Your task to perform on an android device: find snoozed emails in the gmail app Image 0: 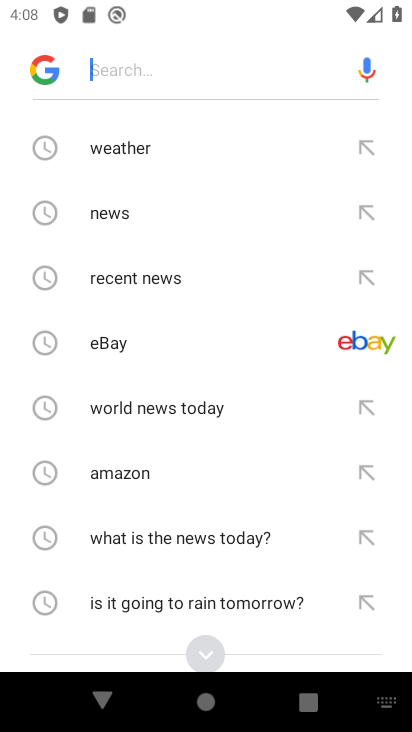
Step 0: press home button
Your task to perform on an android device: find snoozed emails in the gmail app Image 1: 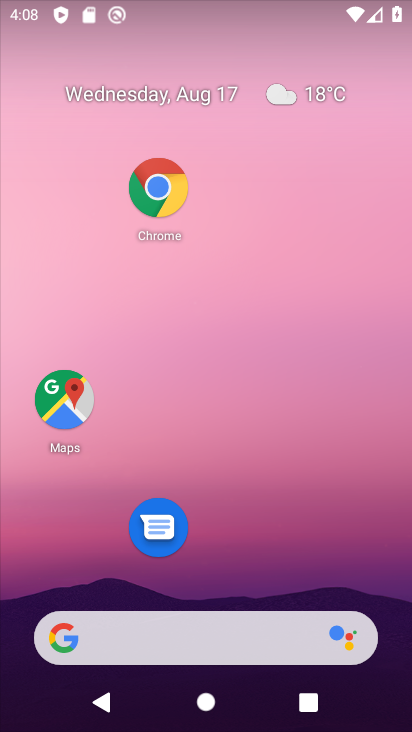
Step 1: drag from (237, 587) to (183, 23)
Your task to perform on an android device: find snoozed emails in the gmail app Image 2: 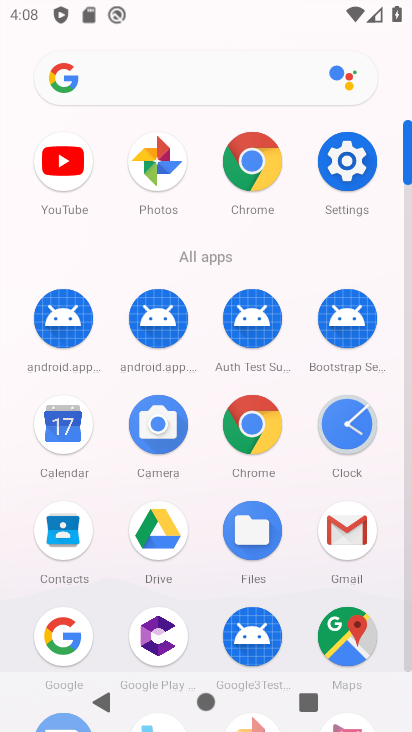
Step 2: click (351, 517)
Your task to perform on an android device: find snoozed emails in the gmail app Image 3: 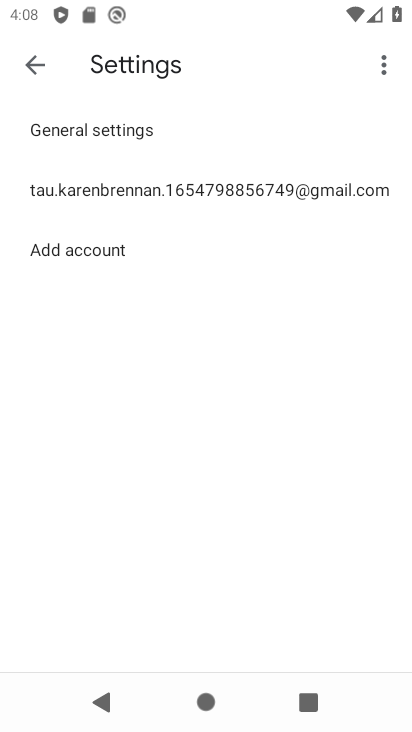
Step 3: click (31, 65)
Your task to perform on an android device: find snoozed emails in the gmail app Image 4: 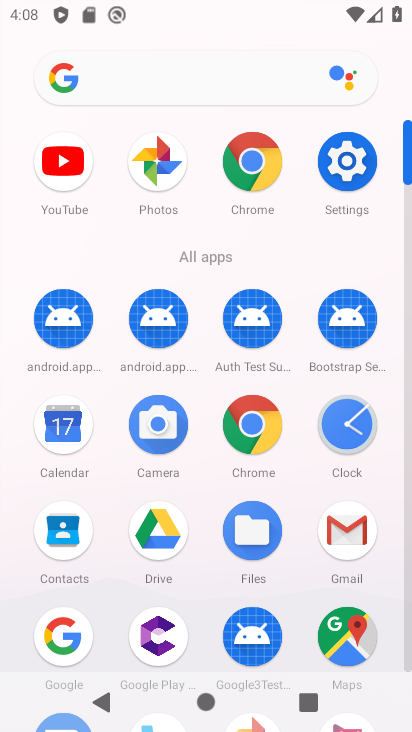
Step 4: click (338, 537)
Your task to perform on an android device: find snoozed emails in the gmail app Image 5: 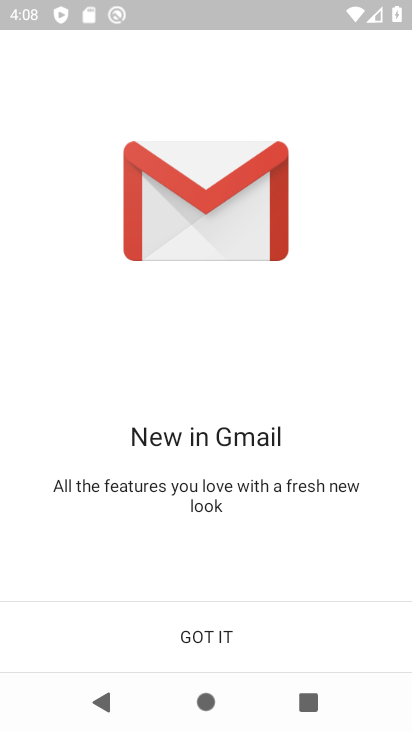
Step 5: click (299, 663)
Your task to perform on an android device: find snoozed emails in the gmail app Image 6: 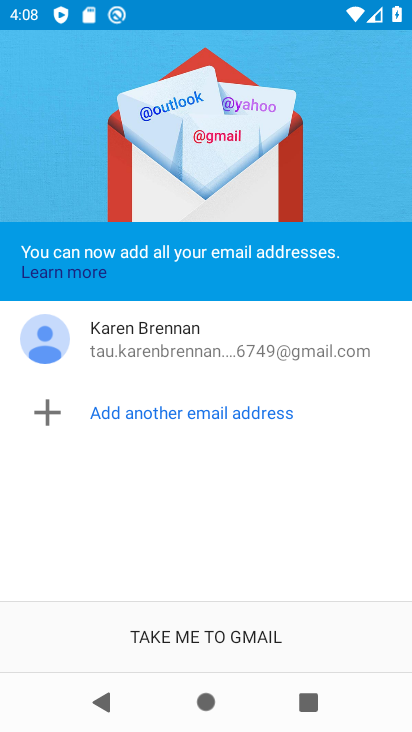
Step 6: click (273, 636)
Your task to perform on an android device: find snoozed emails in the gmail app Image 7: 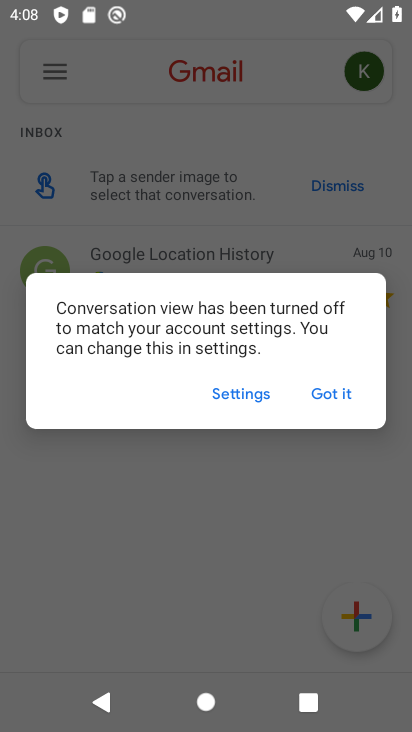
Step 7: click (337, 392)
Your task to perform on an android device: find snoozed emails in the gmail app Image 8: 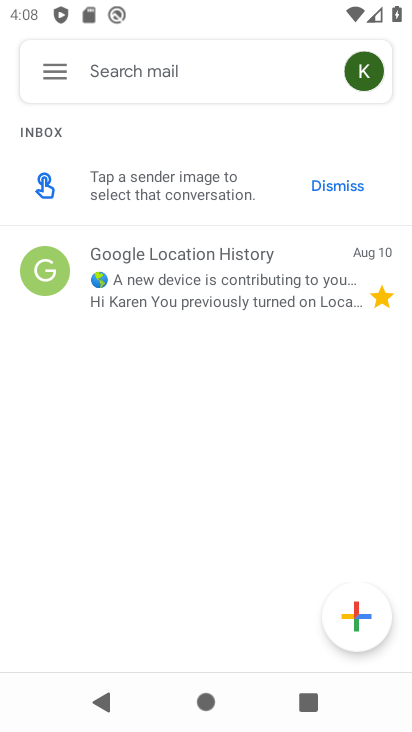
Step 8: click (45, 75)
Your task to perform on an android device: find snoozed emails in the gmail app Image 9: 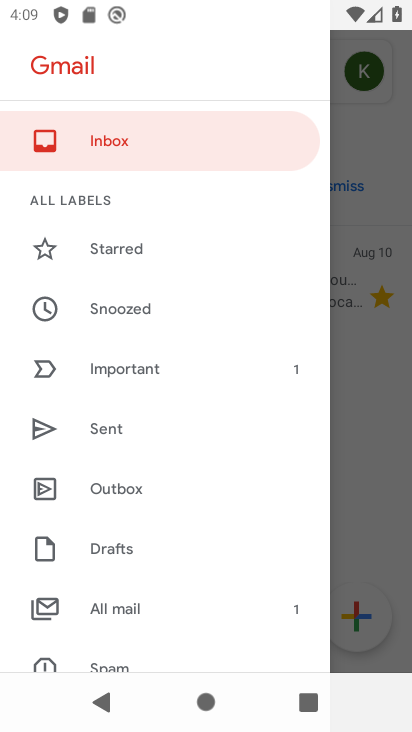
Step 9: click (97, 318)
Your task to perform on an android device: find snoozed emails in the gmail app Image 10: 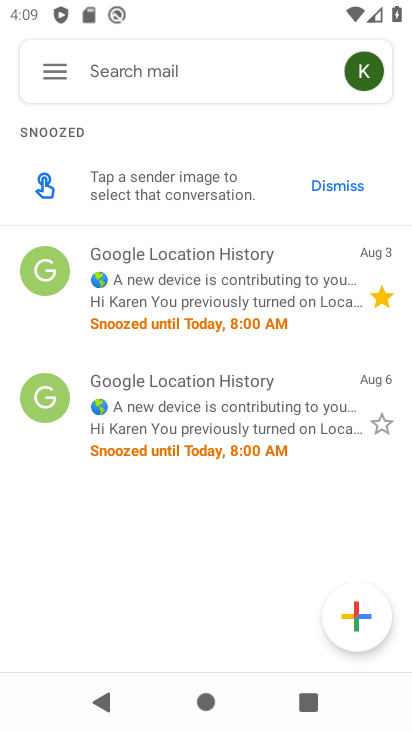
Step 10: task complete